Your task to perform on an android device: clear all cookies in the chrome app Image 0: 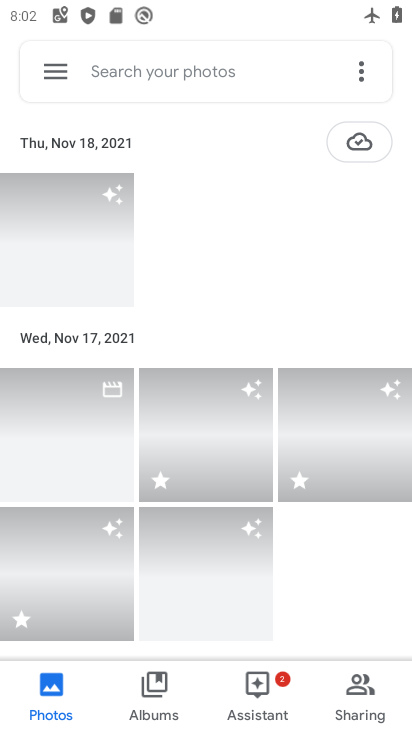
Step 0: press home button
Your task to perform on an android device: clear all cookies in the chrome app Image 1: 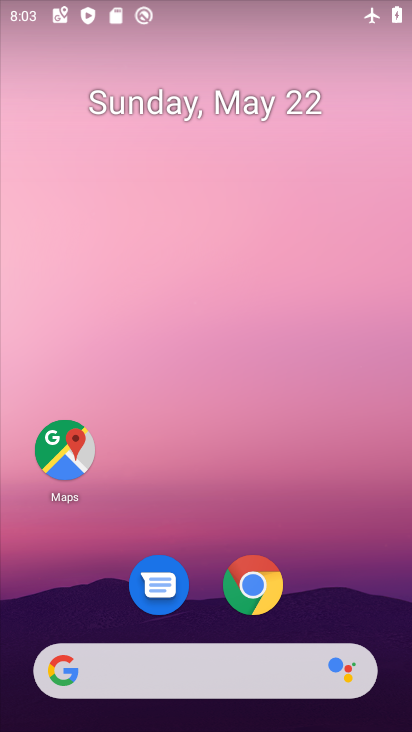
Step 1: click (257, 576)
Your task to perform on an android device: clear all cookies in the chrome app Image 2: 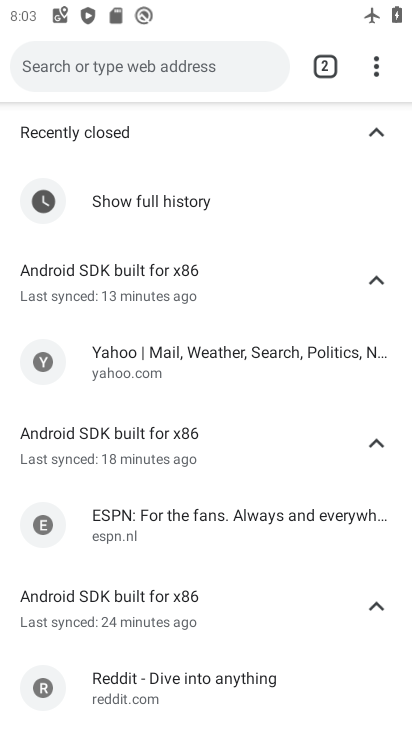
Step 2: click (373, 73)
Your task to perform on an android device: clear all cookies in the chrome app Image 3: 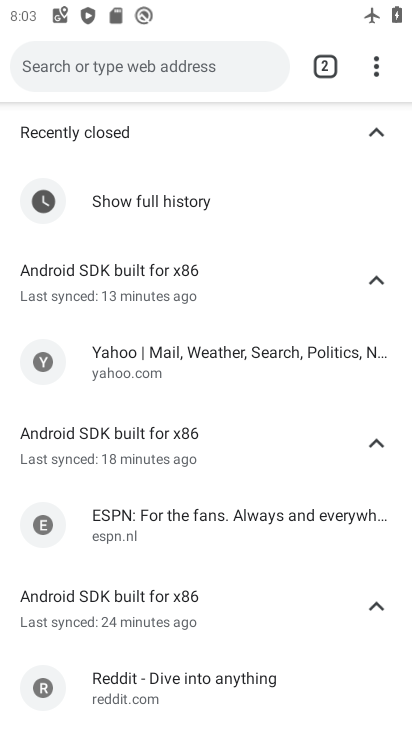
Step 3: click (373, 73)
Your task to perform on an android device: clear all cookies in the chrome app Image 4: 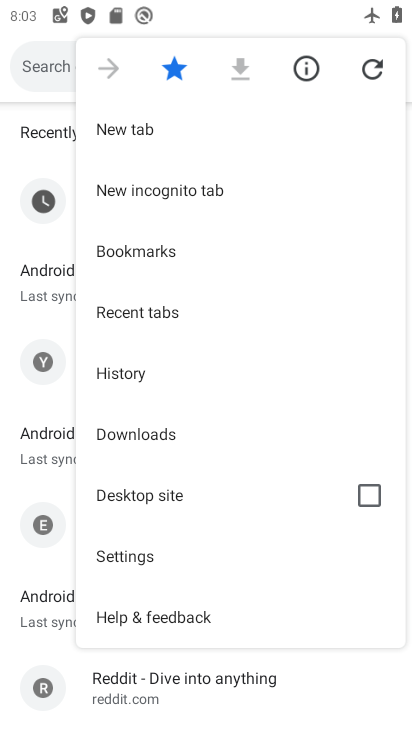
Step 4: click (137, 372)
Your task to perform on an android device: clear all cookies in the chrome app Image 5: 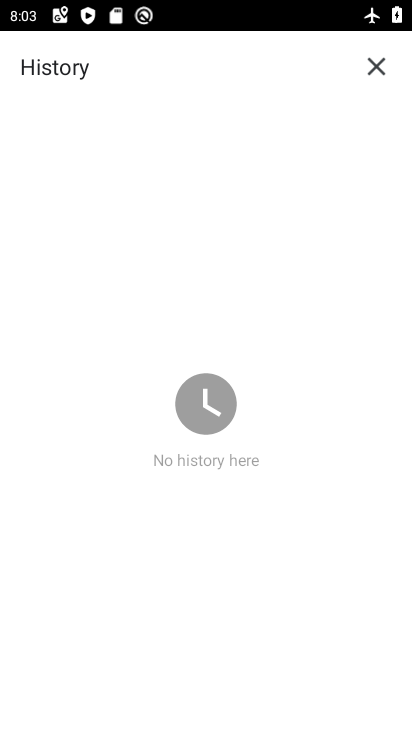
Step 5: task complete